Your task to perform on an android device: Open Reddit.com Image 0: 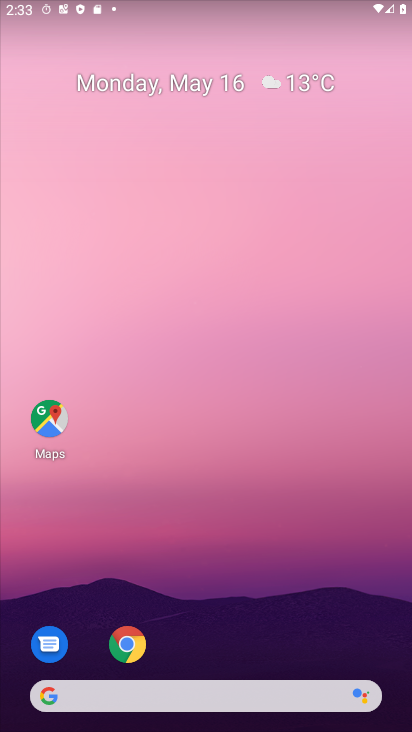
Step 0: drag from (247, 634) to (250, 245)
Your task to perform on an android device: Open Reddit.com Image 1: 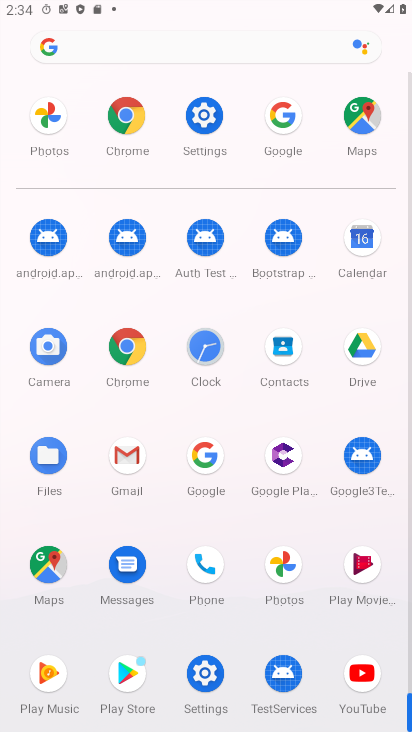
Step 1: click (136, 363)
Your task to perform on an android device: Open Reddit.com Image 2: 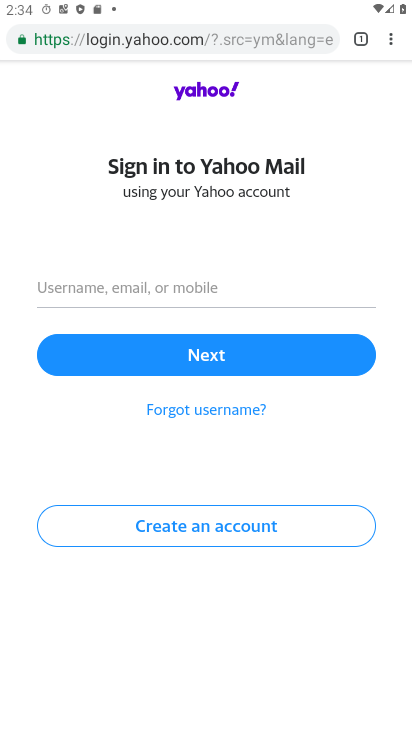
Step 2: click (302, 38)
Your task to perform on an android device: Open Reddit.com Image 3: 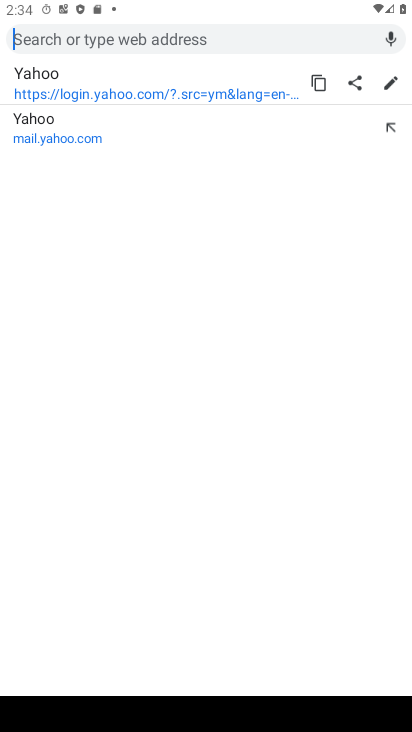
Step 3: type "reddit"
Your task to perform on an android device: Open Reddit.com Image 4: 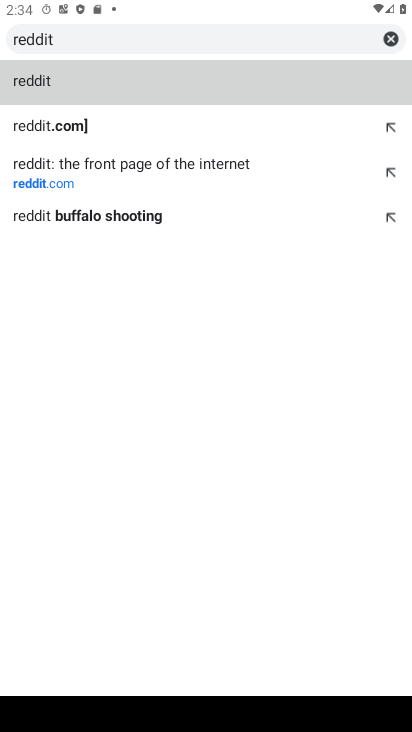
Step 4: click (184, 157)
Your task to perform on an android device: Open Reddit.com Image 5: 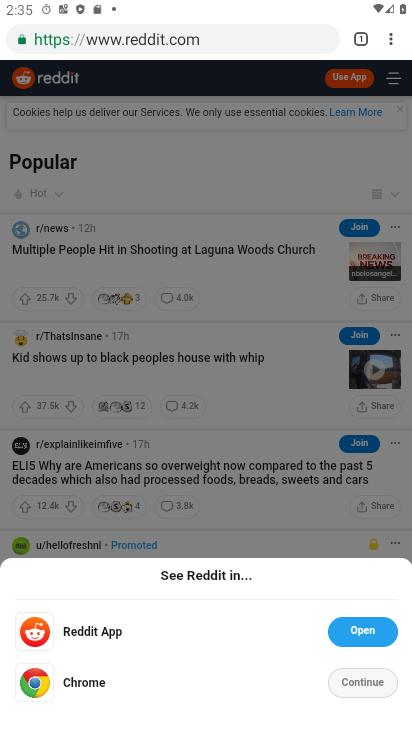
Step 5: task complete